Your task to perform on an android device: What is the recent news? Image 0: 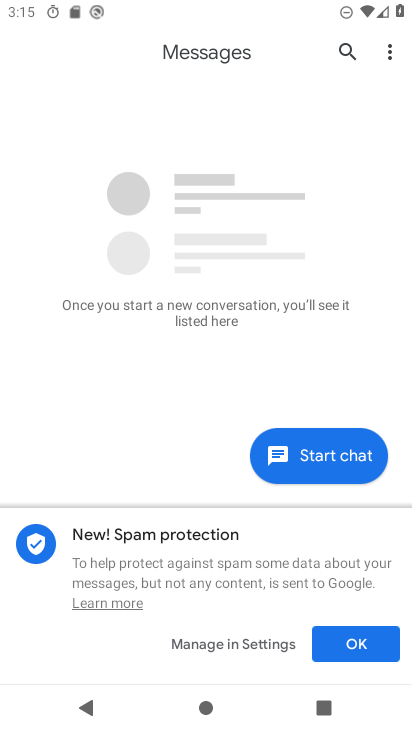
Step 0: press home button
Your task to perform on an android device: What is the recent news? Image 1: 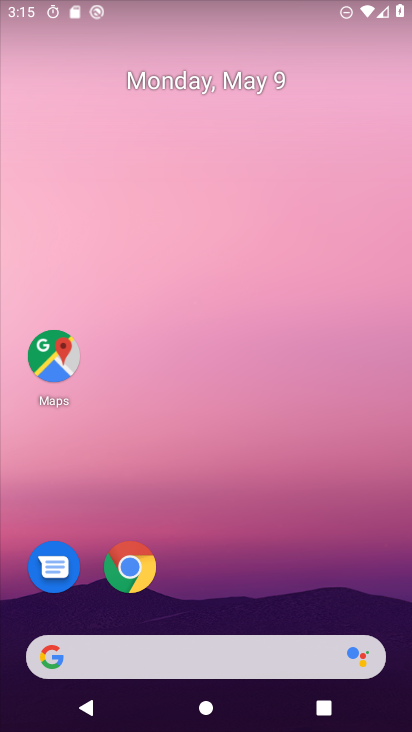
Step 1: click (156, 668)
Your task to perform on an android device: What is the recent news? Image 2: 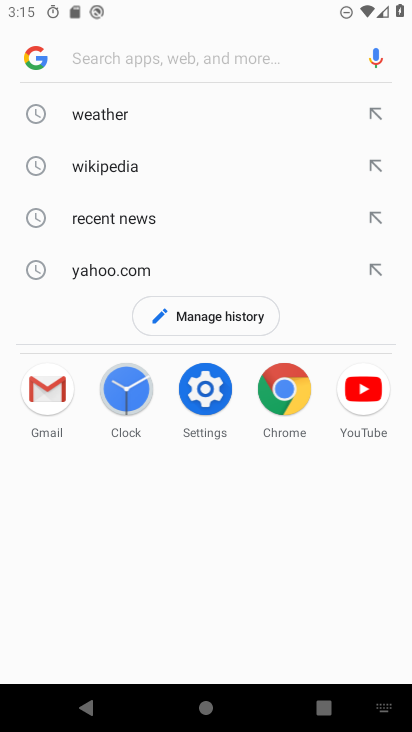
Step 2: click (127, 222)
Your task to perform on an android device: What is the recent news? Image 3: 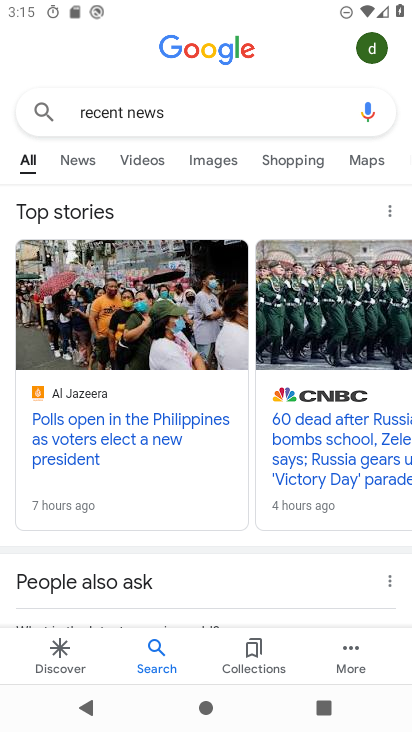
Step 3: click (79, 159)
Your task to perform on an android device: What is the recent news? Image 4: 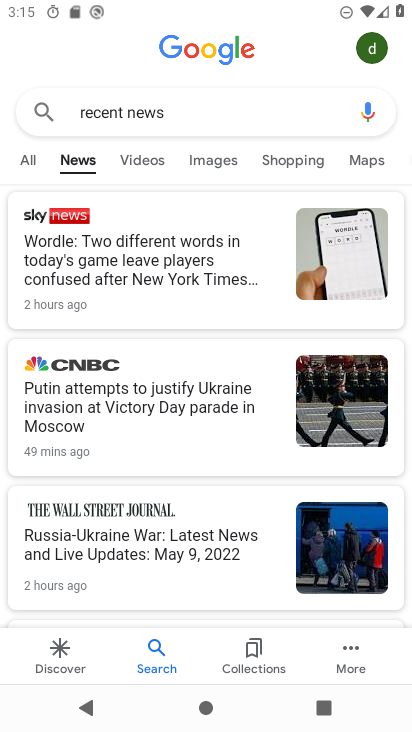
Step 4: task complete